Your task to perform on an android device: Add asus zenbook to the cart on target.com, then select checkout. Image 0: 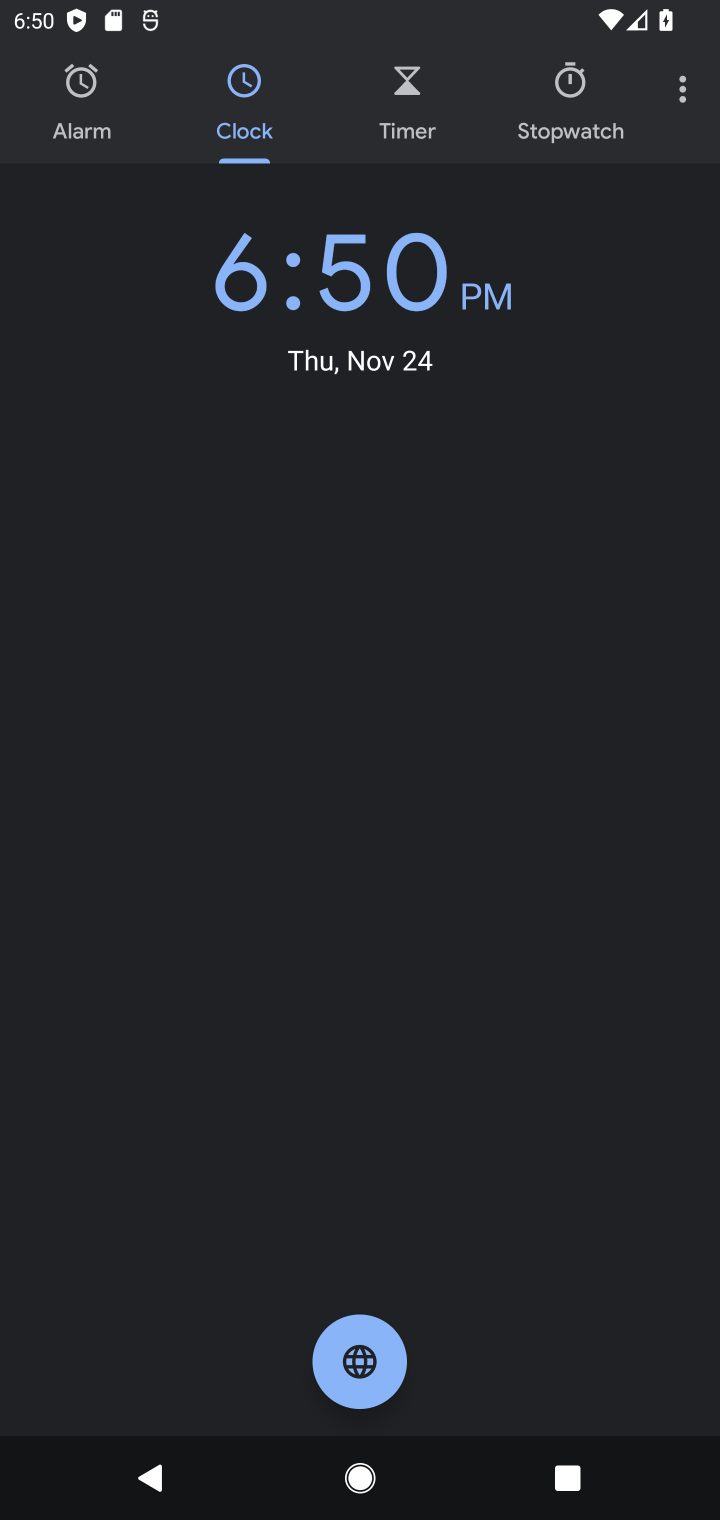
Step 0: press home button
Your task to perform on an android device: Add asus zenbook to the cart on target.com, then select checkout. Image 1: 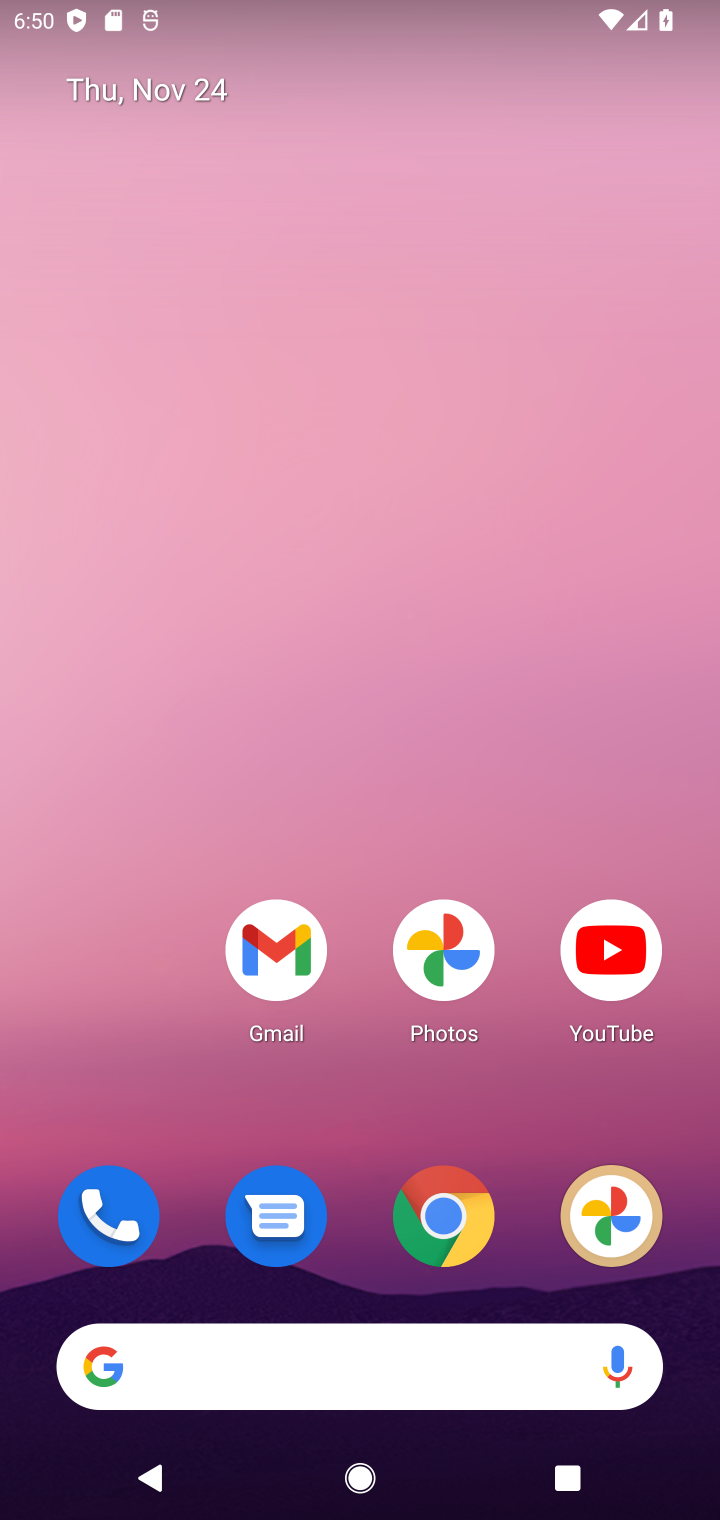
Step 1: click (431, 1222)
Your task to perform on an android device: Add asus zenbook to the cart on target.com, then select checkout. Image 2: 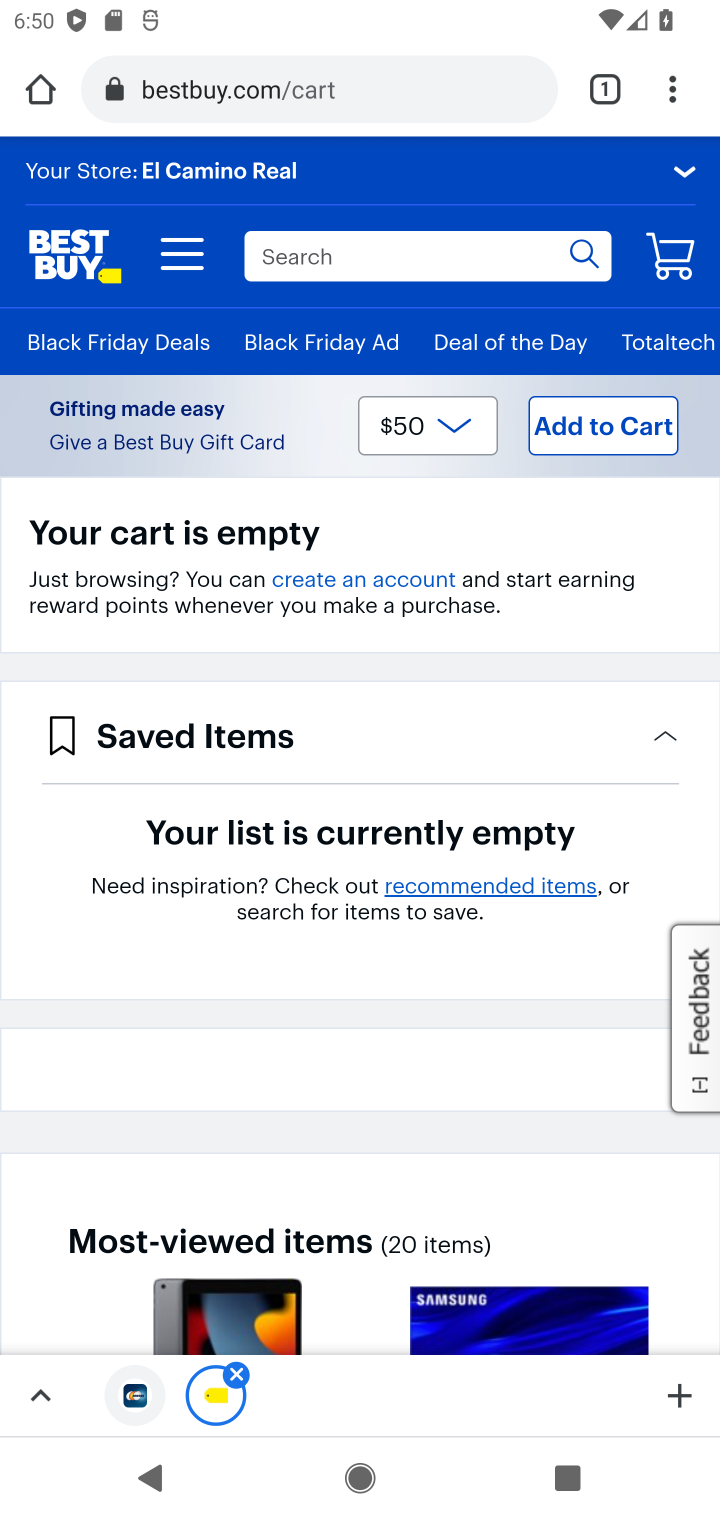
Step 2: click (400, 61)
Your task to perform on an android device: Add asus zenbook to the cart on target.com, then select checkout. Image 3: 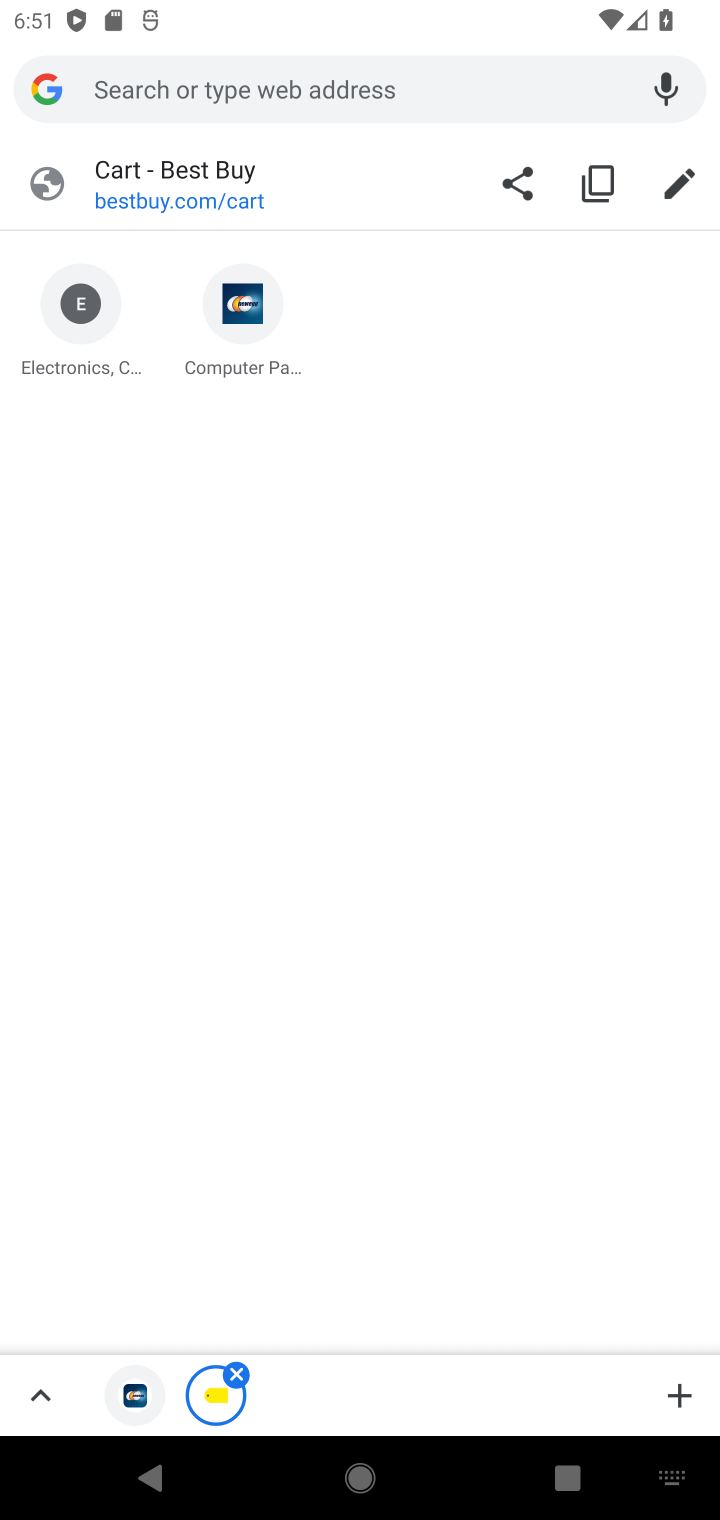
Step 3: type "target.com"
Your task to perform on an android device: Add asus zenbook to the cart on target.com, then select checkout. Image 4: 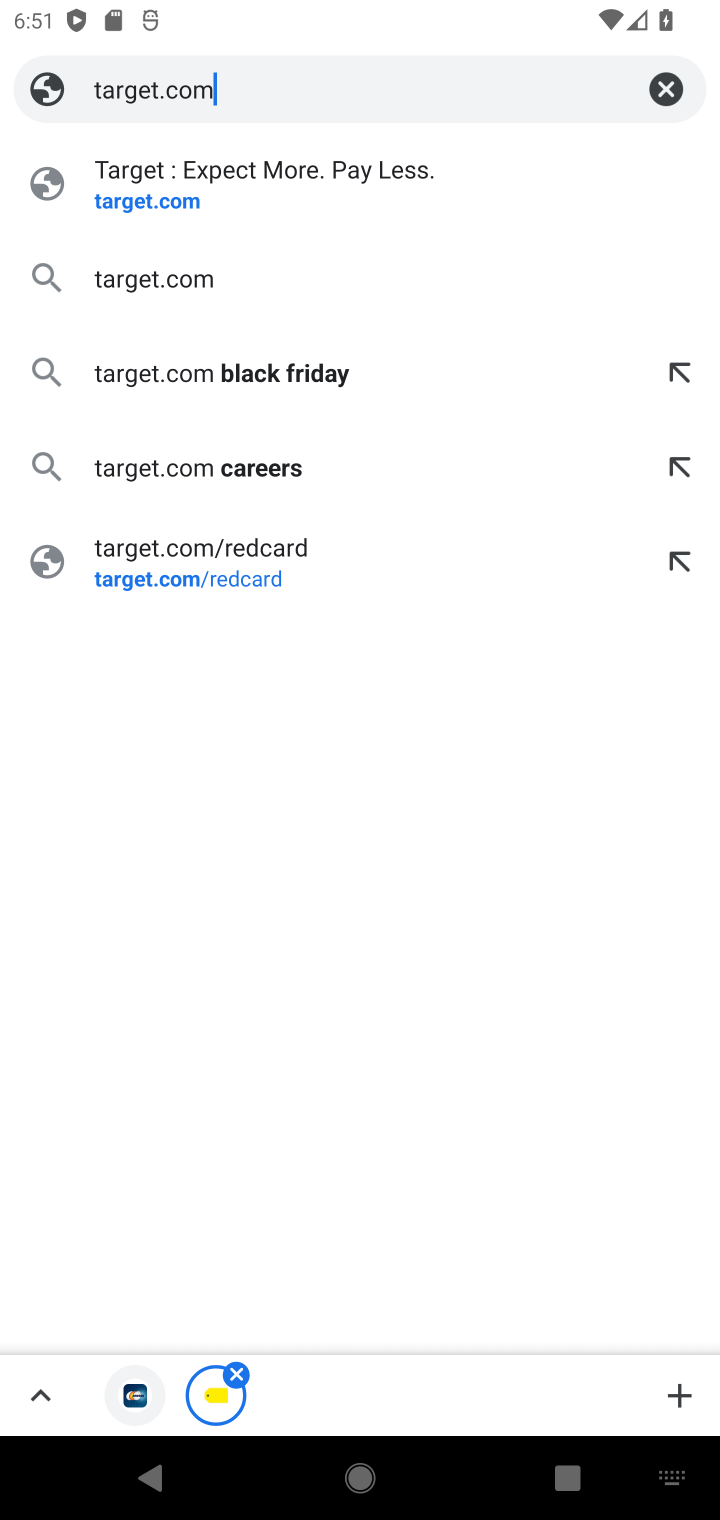
Step 4: click (236, 189)
Your task to perform on an android device: Add asus zenbook to the cart on target.com, then select checkout. Image 5: 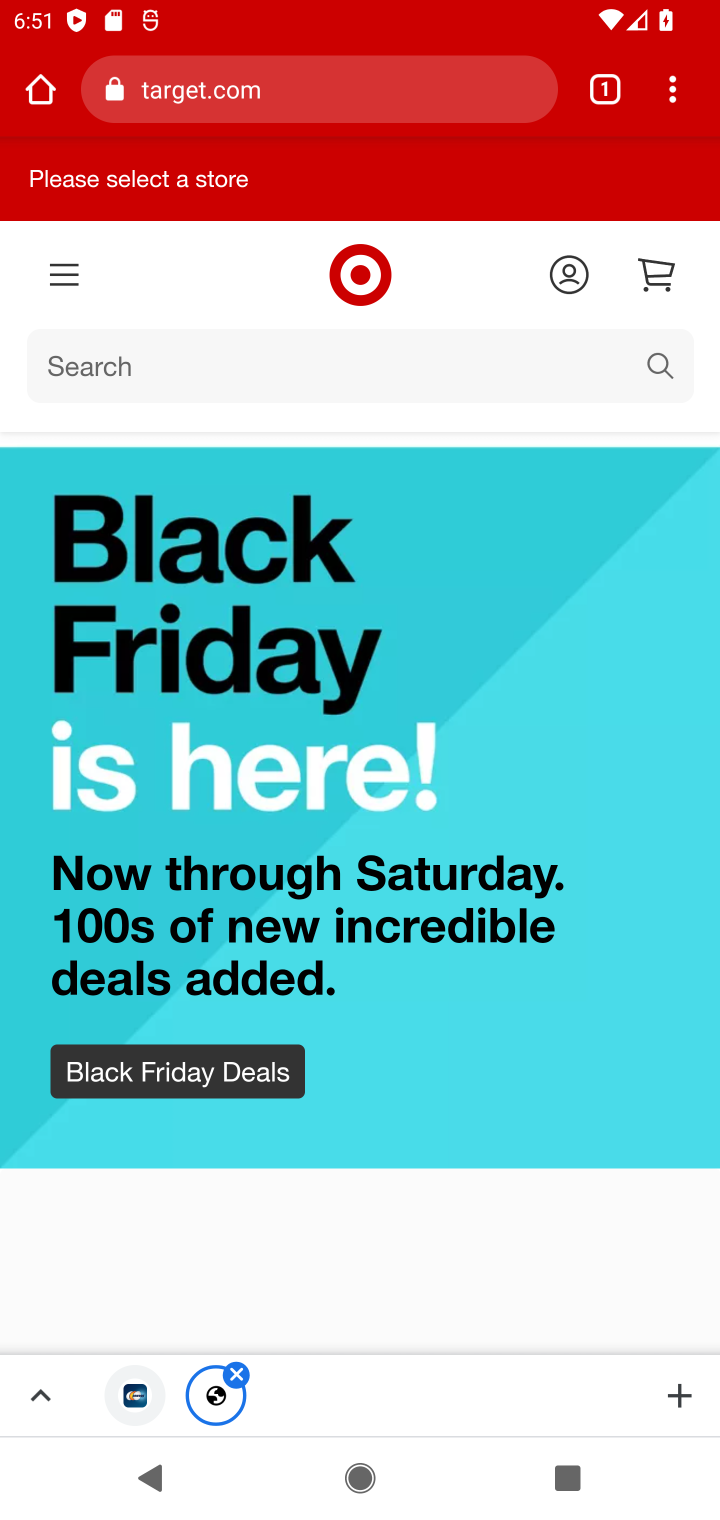
Step 5: click (239, 366)
Your task to perform on an android device: Add asus zenbook to the cart on target.com, then select checkout. Image 6: 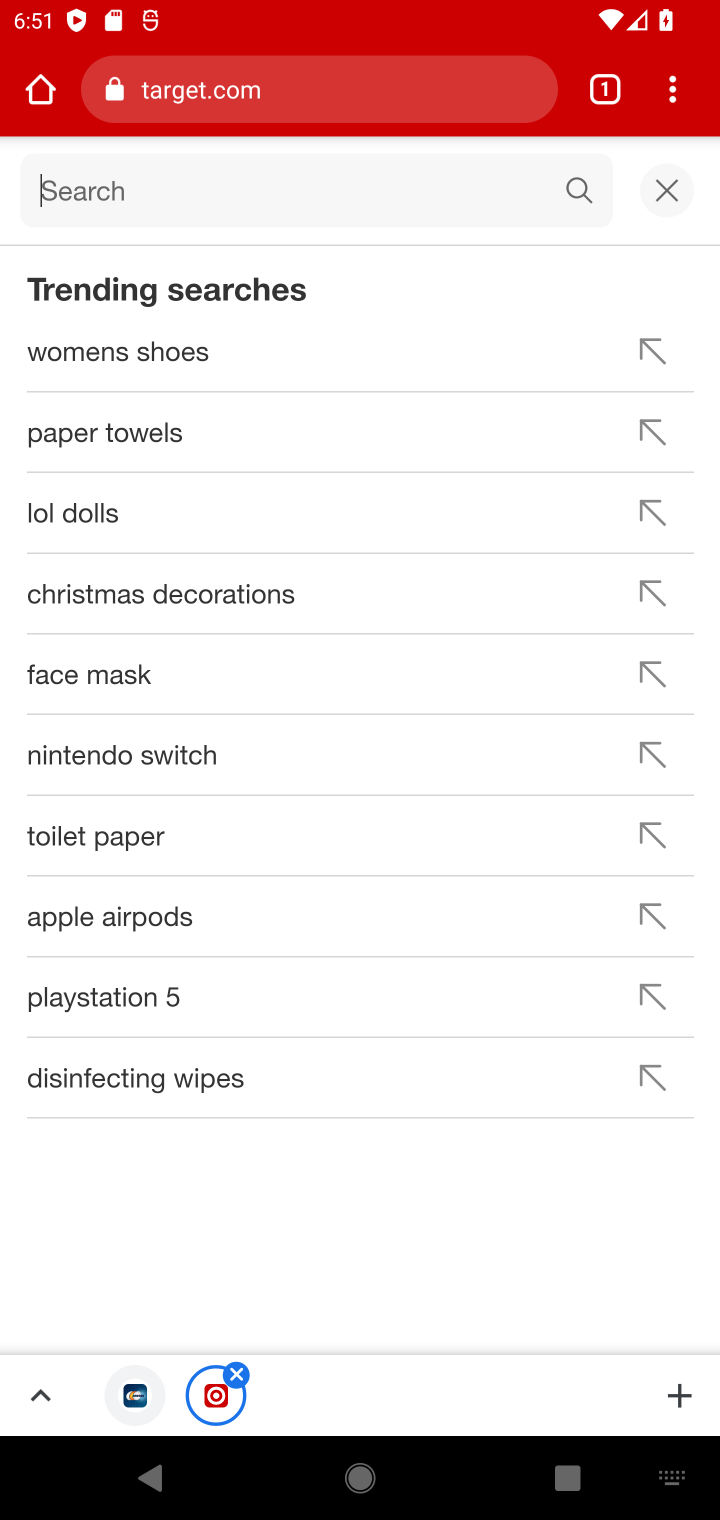
Step 6: type "asus zenbook"
Your task to perform on an android device: Add asus zenbook to the cart on target.com, then select checkout. Image 7: 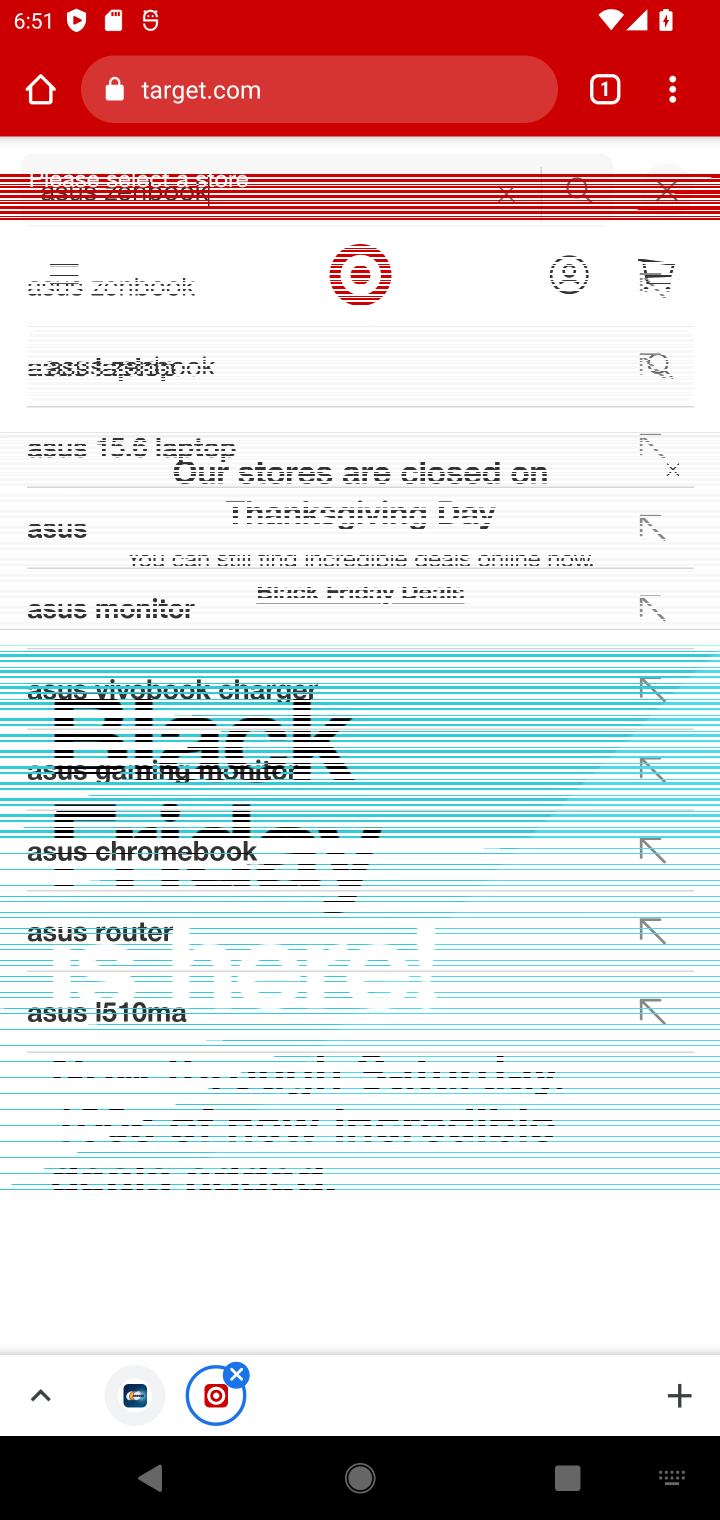
Step 7: click (146, 303)
Your task to perform on an android device: Add asus zenbook to the cart on target.com, then select checkout. Image 8: 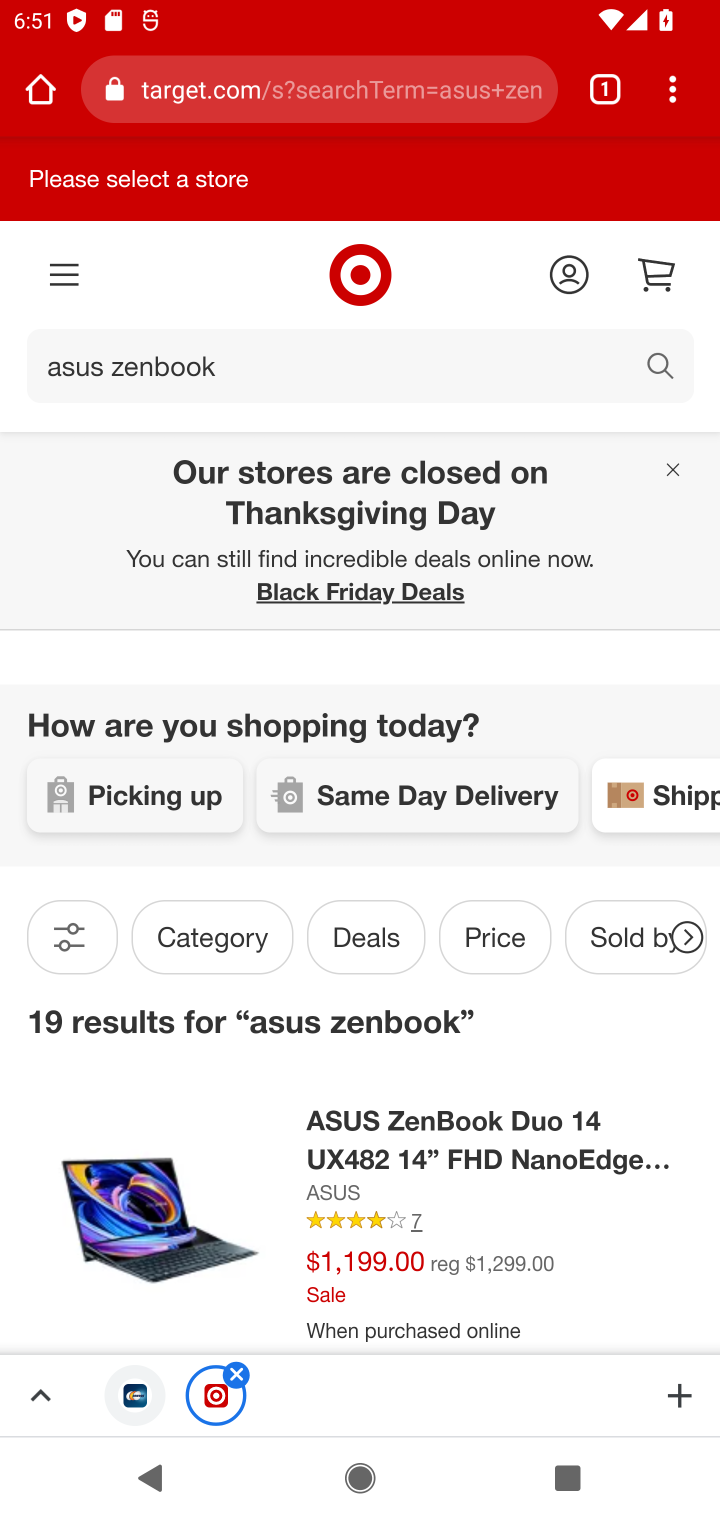
Step 8: drag from (399, 1180) to (401, 919)
Your task to perform on an android device: Add asus zenbook to the cart on target.com, then select checkout. Image 9: 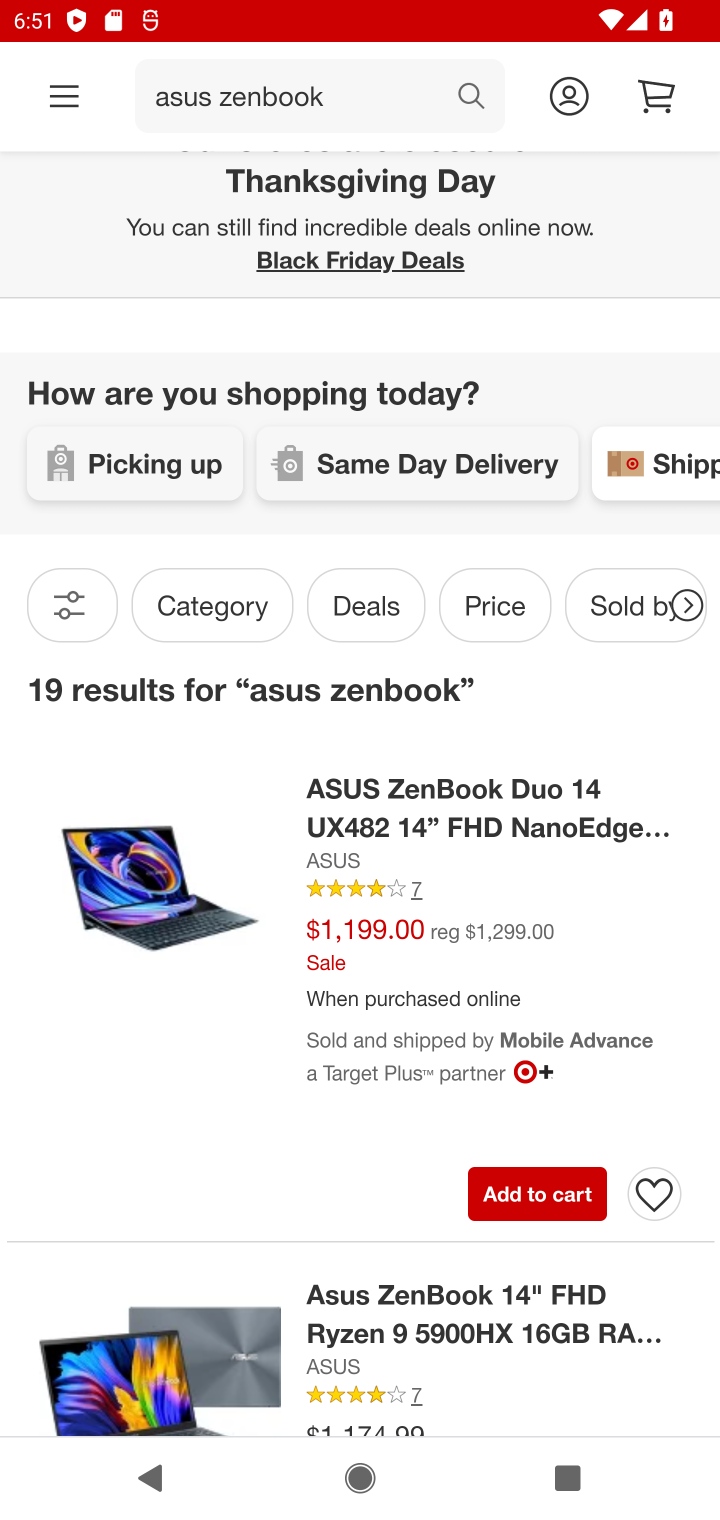
Step 9: click (519, 1208)
Your task to perform on an android device: Add asus zenbook to the cart on target.com, then select checkout. Image 10: 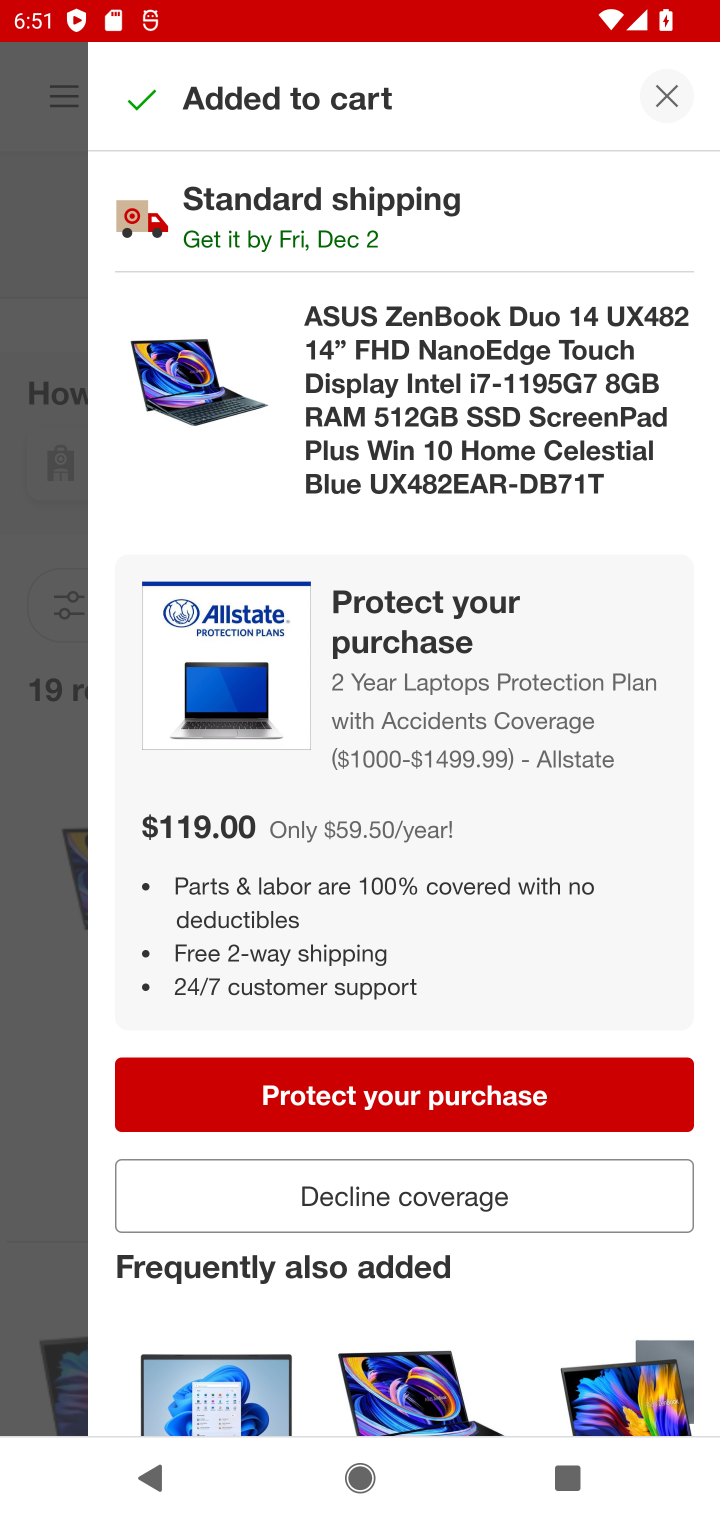
Step 10: click (454, 1190)
Your task to perform on an android device: Add asus zenbook to the cart on target.com, then select checkout. Image 11: 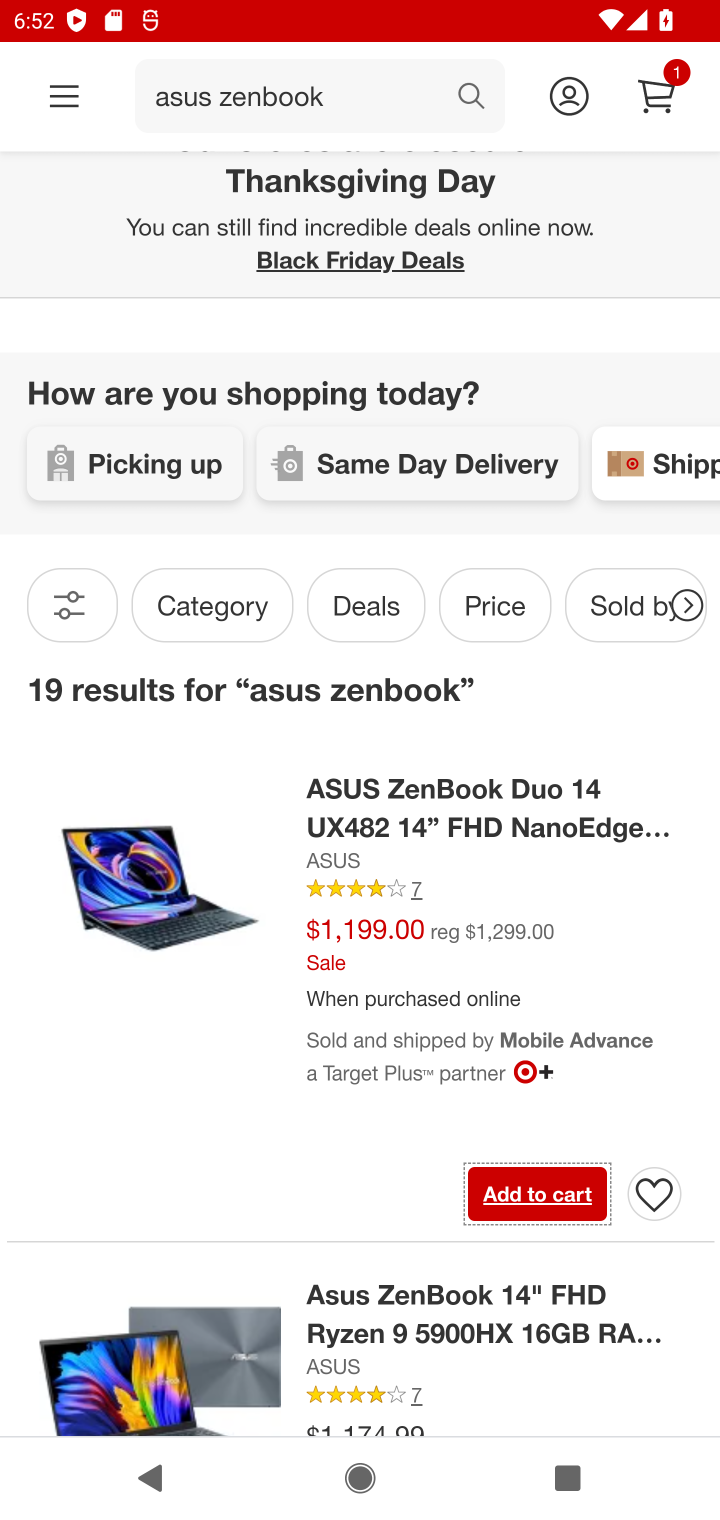
Step 11: click (661, 91)
Your task to perform on an android device: Add asus zenbook to the cart on target.com, then select checkout. Image 12: 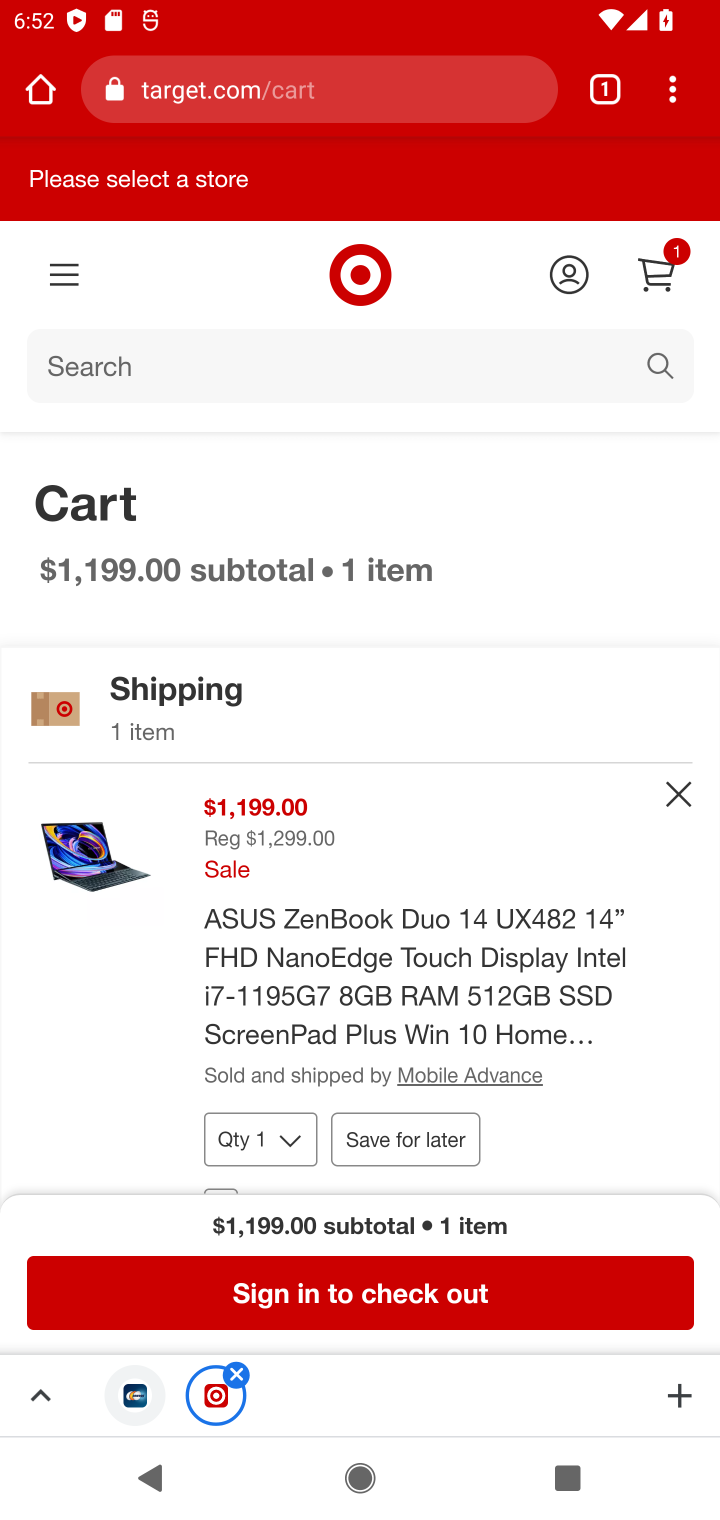
Step 12: click (467, 1282)
Your task to perform on an android device: Add asus zenbook to the cart on target.com, then select checkout. Image 13: 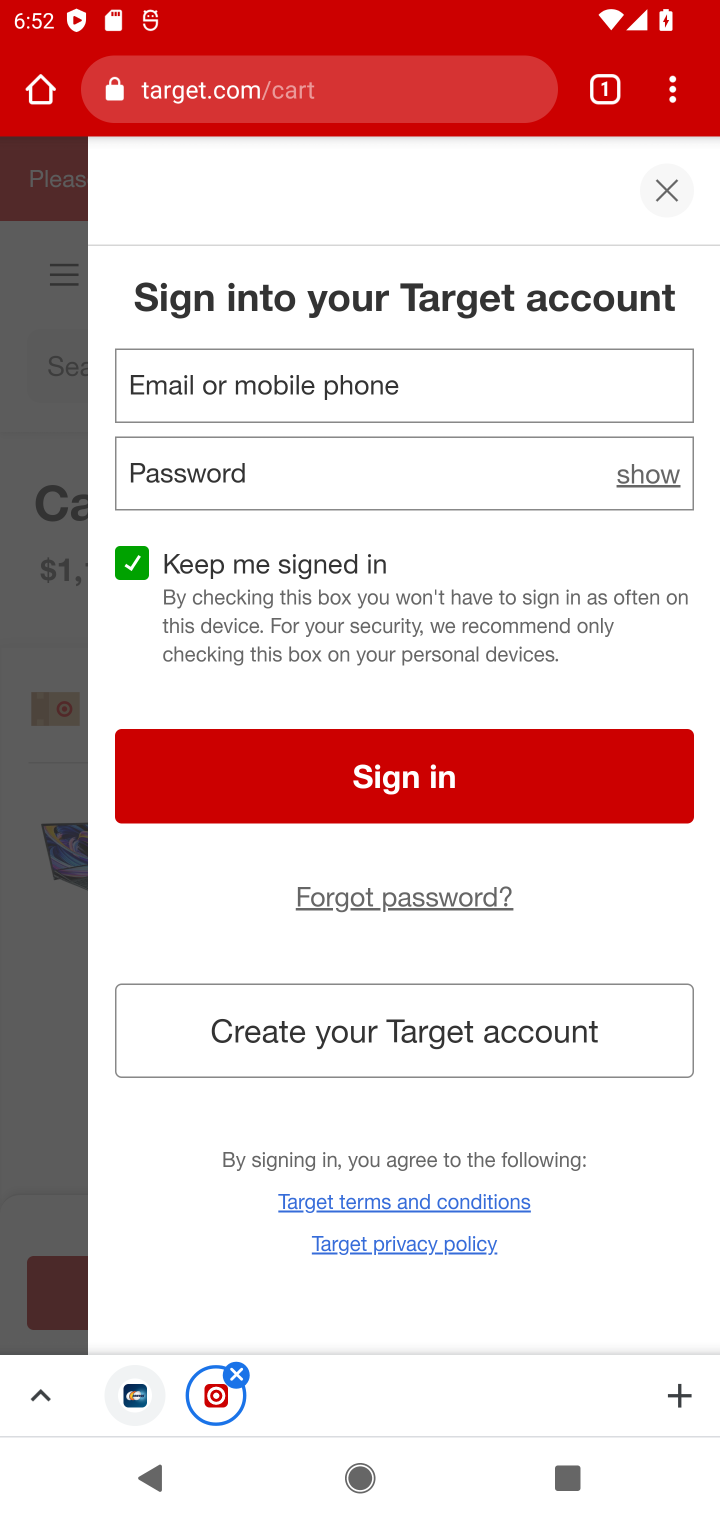
Step 13: task complete